Your task to perform on an android device: Is it going to rain this weekend? Image 0: 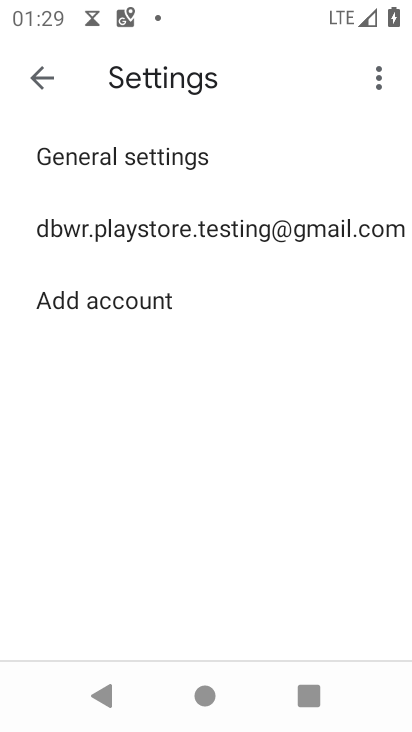
Step 0: press home button
Your task to perform on an android device: Is it going to rain this weekend? Image 1: 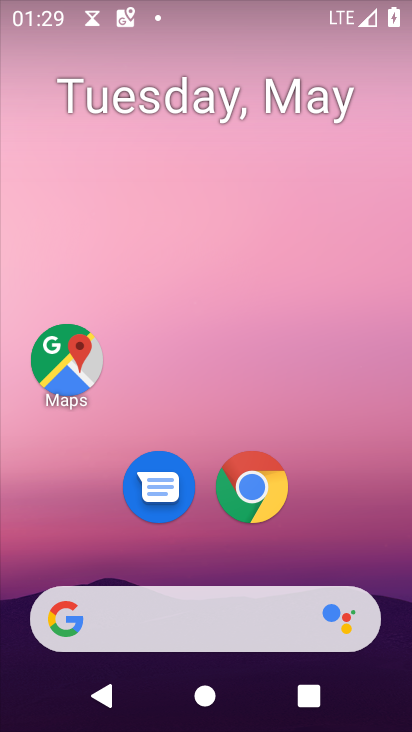
Step 1: drag from (328, 403) to (268, 18)
Your task to perform on an android device: Is it going to rain this weekend? Image 2: 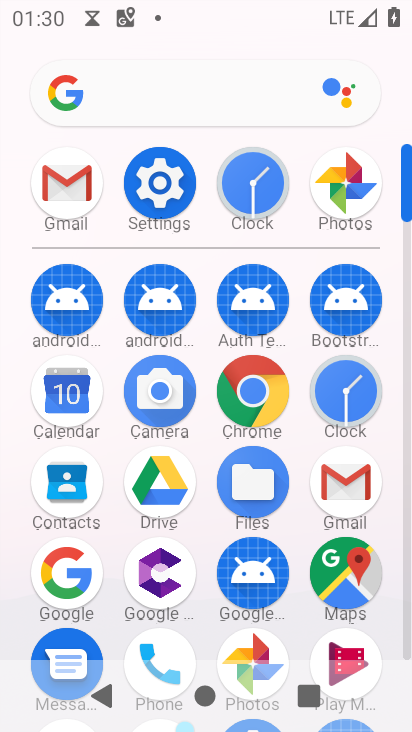
Step 2: drag from (193, 662) to (236, 165)
Your task to perform on an android device: Is it going to rain this weekend? Image 3: 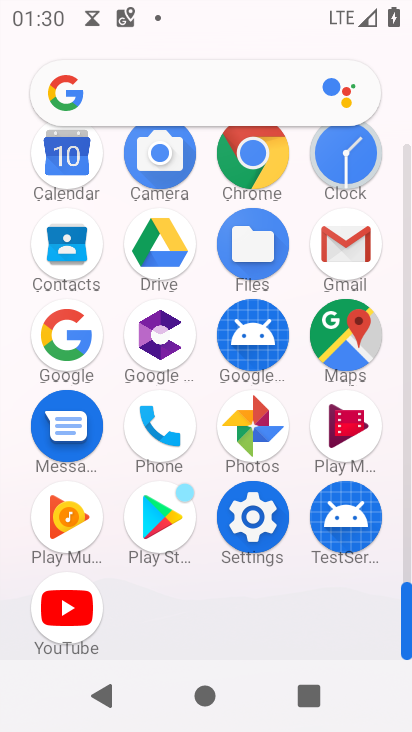
Step 3: drag from (233, 270) to (269, 725)
Your task to perform on an android device: Is it going to rain this weekend? Image 4: 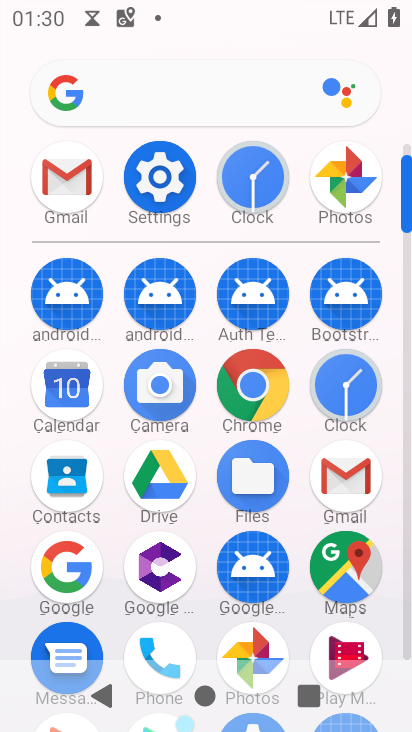
Step 4: press home button
Your task to perform on an android device: Is it going to rain this weekend? Image 5: 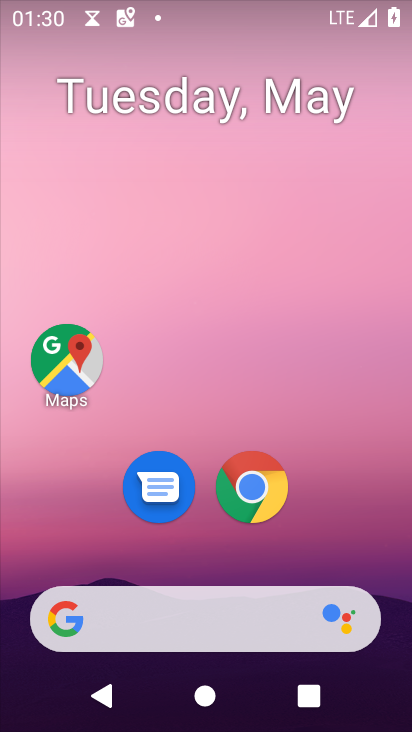
Step 5: drag from (214, 407) to (211, 37)
Your task to perform on an android device: Is it going to rain this weekend? Image 6: 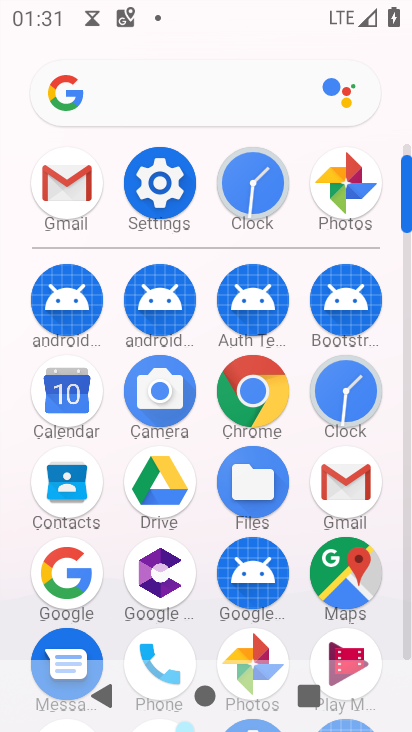
Step 6: drag from (187, 581) to (136, 265)
Your task to perform on an android device: Is it going to rain this weekend? Image 7: 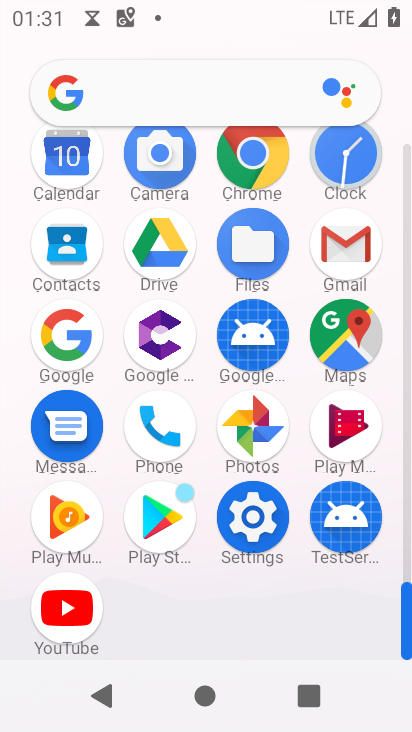
Step 7: drag from (128, 225) to (252, 651)
Your task to perform on an android device: Is it going to rain this weekend? Image 8: 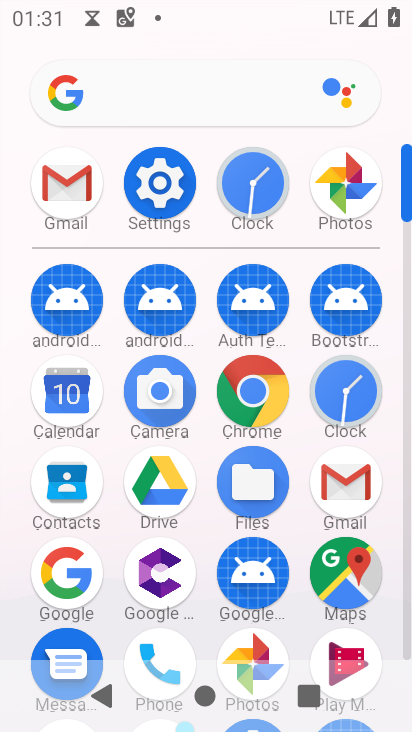
Step 8: drag from (307, 190) to (75, 222)
Your task to perform on an android device: Is it going to rain this weekend? Image 9: 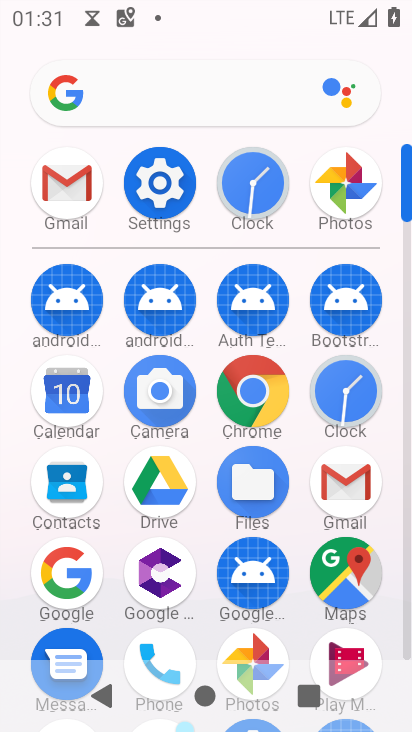
Step 9: drag from (164, 629) to (203, 297)
Your task to perform on an android device: Is it going to rain this weekend? Image 10: 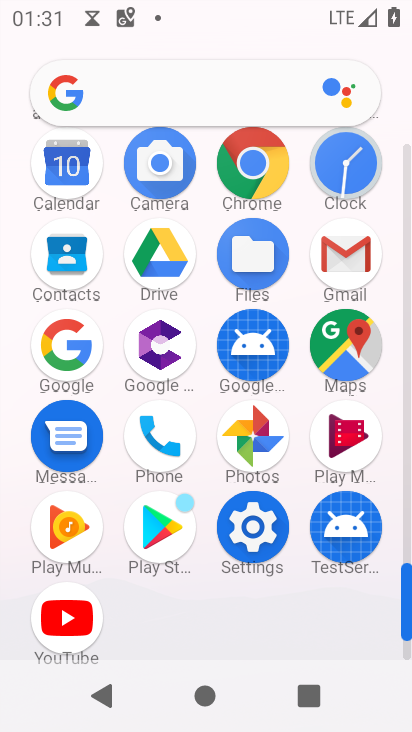
Step 10: press home button
Your task to perform on an android device: Is it going to rain this weekend? Image 11: 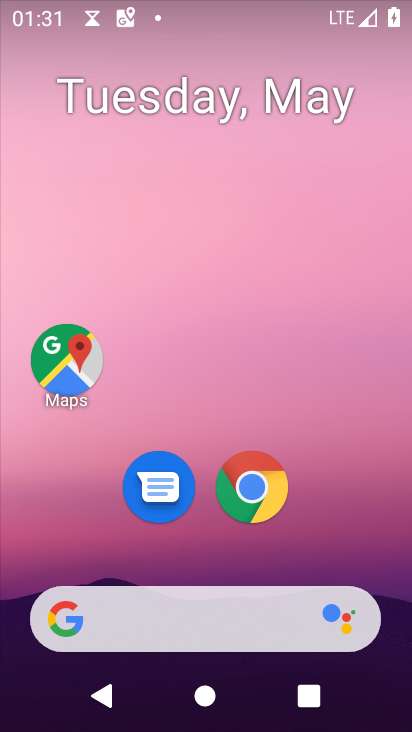
Step 11: click (250, 604)
Your task to perform on an android device: Is it going to rain this weekend? Image 12: 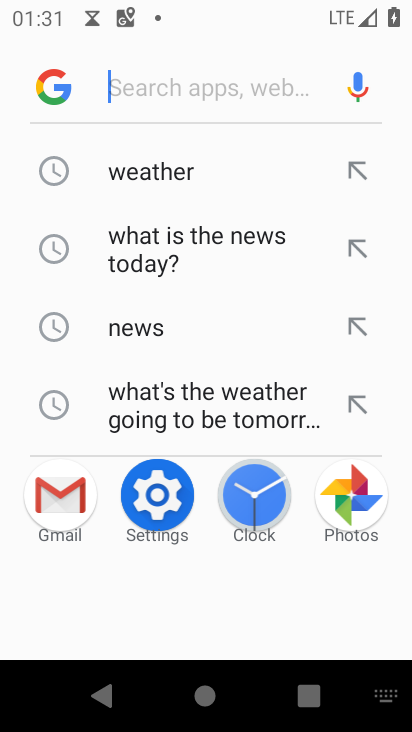
Step 12: click (174, 174)
Your task to perform on an android device: Is it going to rain this weekend? Image 13: 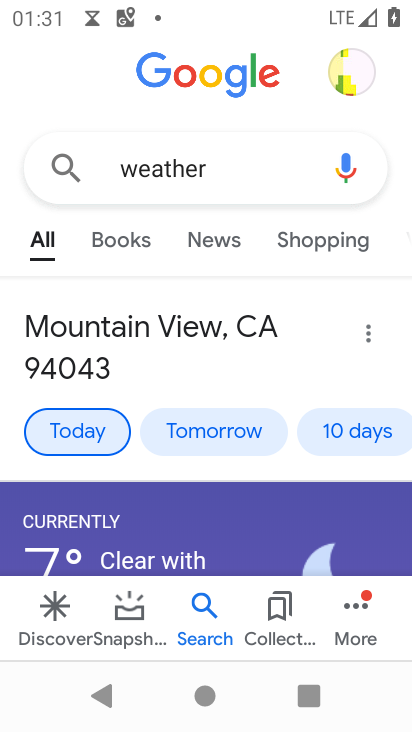
Step 13: click (342, 446)
Your task to perform on an android device: Is it going to rain this weekend? Image 14: 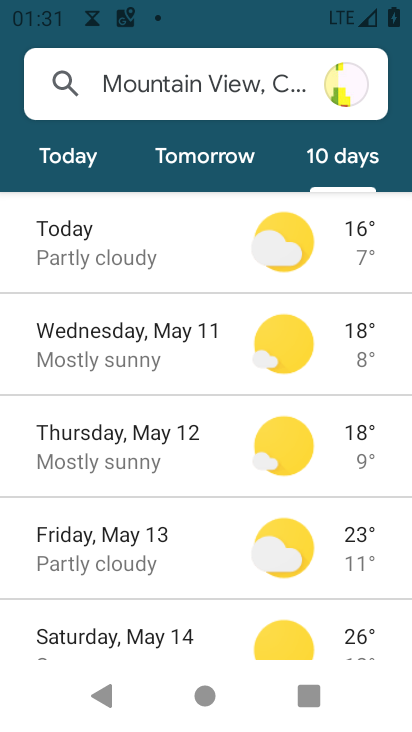
Step 14: task complete